Your task to perform on an android device: choose inbox layout in the gmail app Image 0: 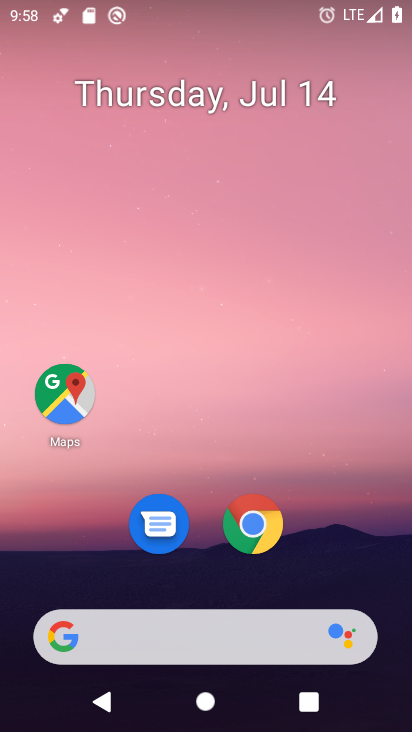
Step 0: drag from (321, 536) to (336, 28)
Your task to perform on an android device: choose inbox layout in the gmail app Image 1: 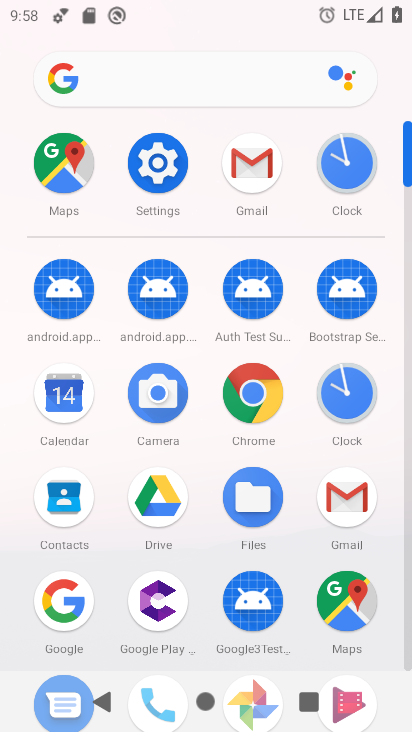
Step 1: click (248, 164)
Your task to perform on an android device: choose inbox layout in the gmail app Image 2: 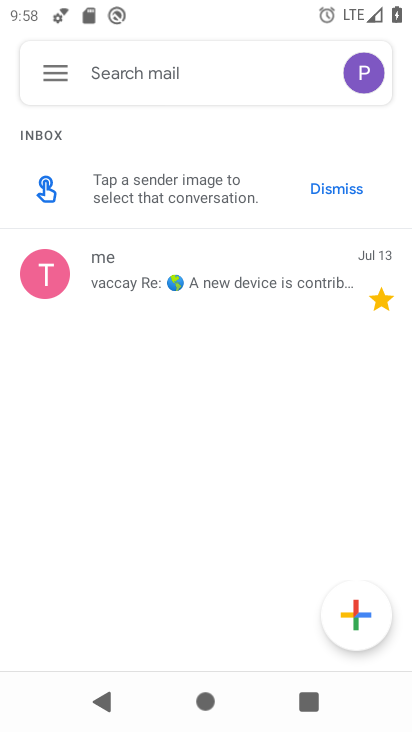
Step 2: click (57, 76)
Your task to perform on an android device: choose inbox layout in the gmail app Image 3: 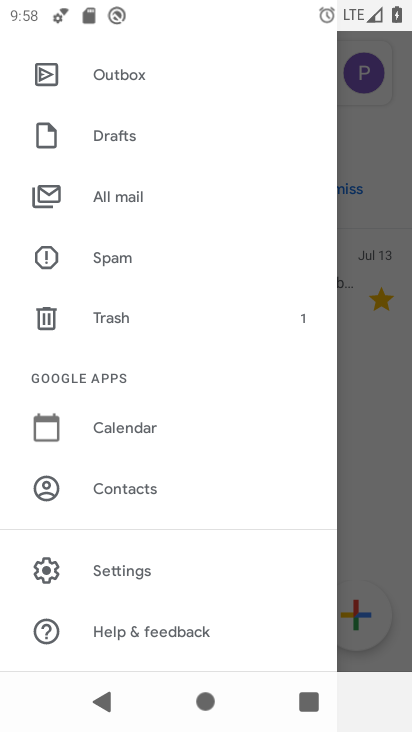
Step 3: drag from (181, 151) to (201, 622)
Your task to perform on an android device: choose inbox layout in the gmail app Image 4: 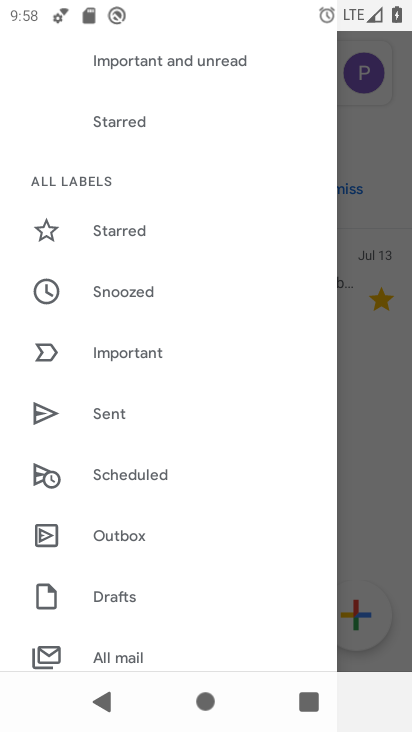
Step 4: drag from (218, 285) to (216, 515)
Your task to perform on an android device: choose inbox layout in the gmail app Image 5: 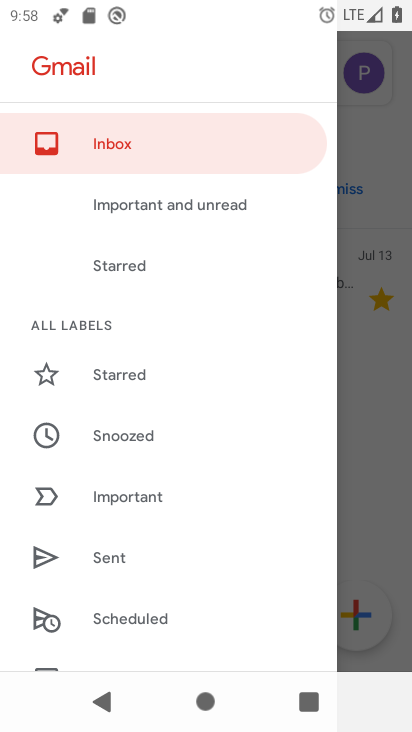
Step 5: drag from (198, 569) to (259, 19)
Your task to perform on an android device: choose inbox layout in the gmail app Image 6: 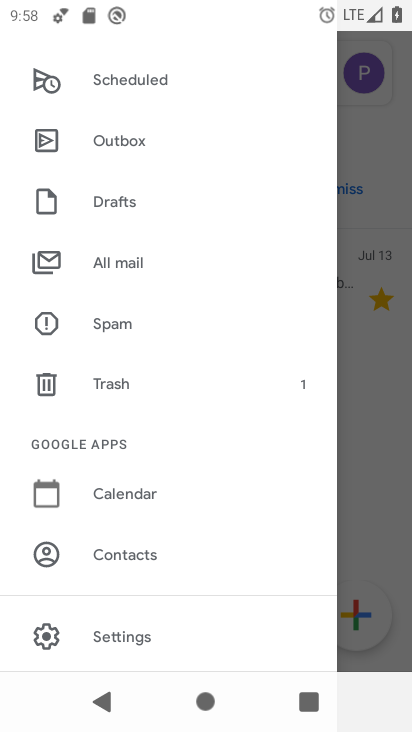
Step 6: click (135, 636)
Your task to perform on an android device: choose inbox layout in the gmail app Image 7: 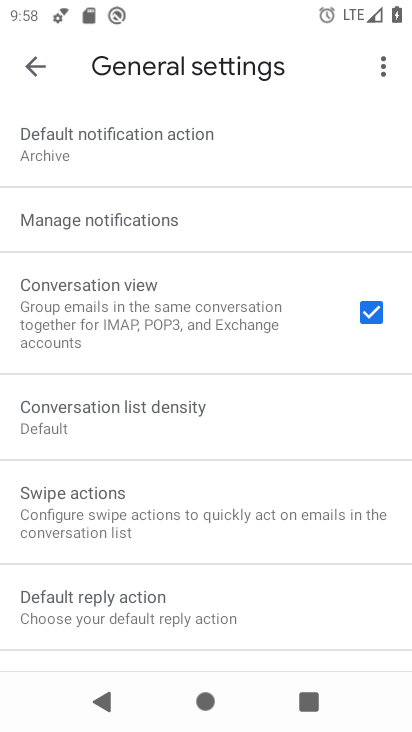
Step 7: click (33, 69)
Your task to perform on an android device: choose inbox layout in the gmail app Image 8: 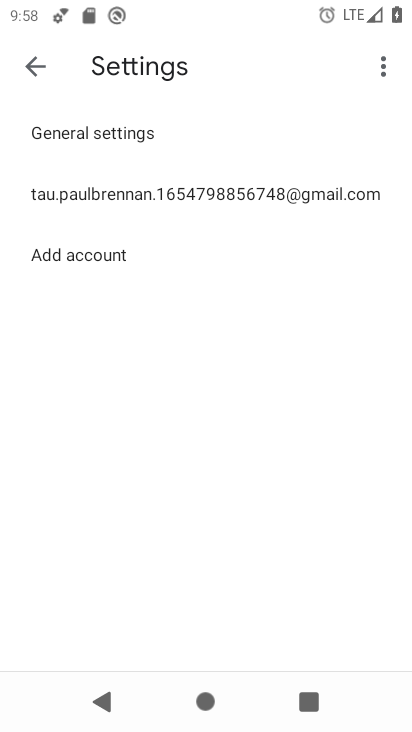
Step 8: click (86, 189)
Your task to perform on an android device: choose inbox layout in the gmail app Image 9: 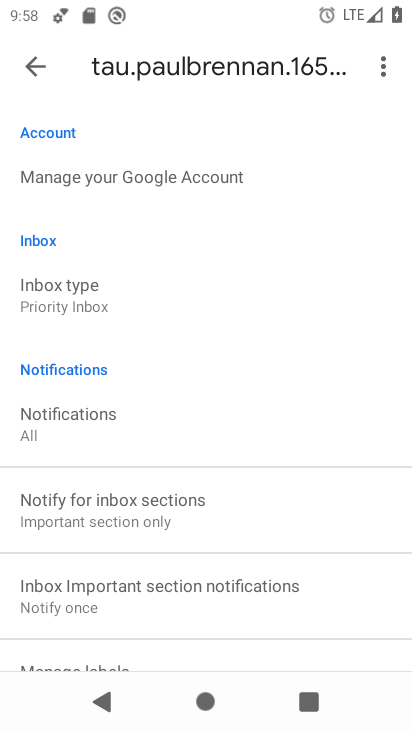
Step 9: click (81, 284)
Your task to perform on an android device: choose inbox layout in the gmail app Image 10: 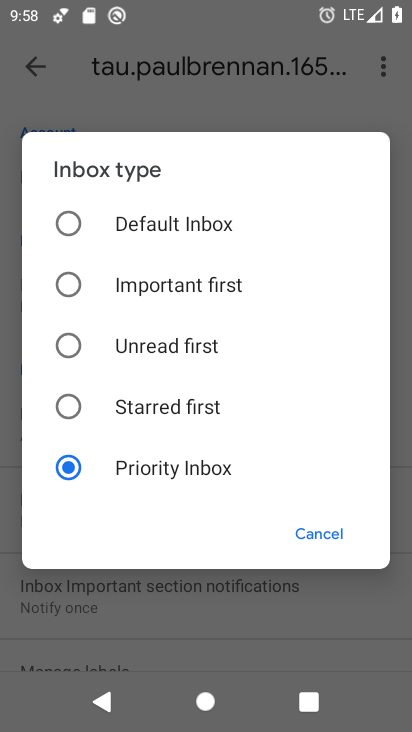
Step 10: click (72, 221)
Your task to perform on an android device: choose inbox layout in the gmail app Image 11: 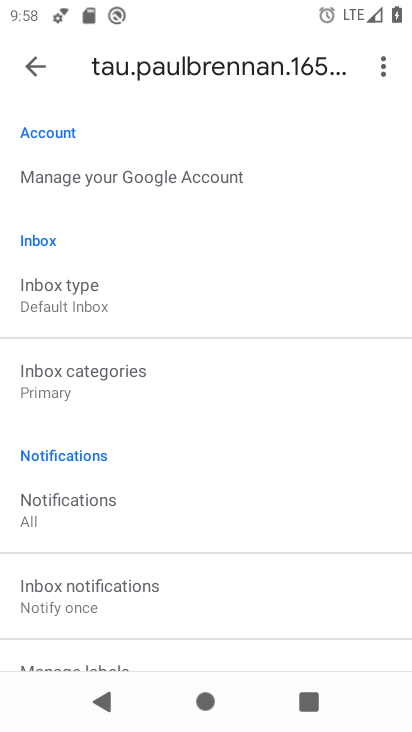
Step 11: task complete